Your task to perform on an android device: What's on my calendar tomorrow? Image 0: 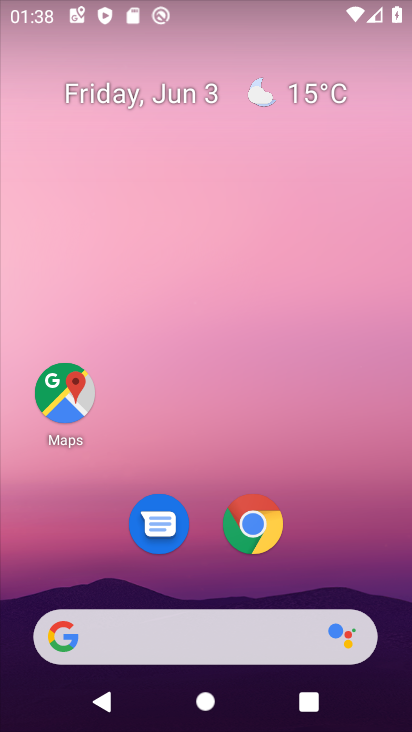
Step 0: drag from (189, 422) to (129, 1)
Your task to perform on an android device: What's on my calendar tomorrow? Image 1: 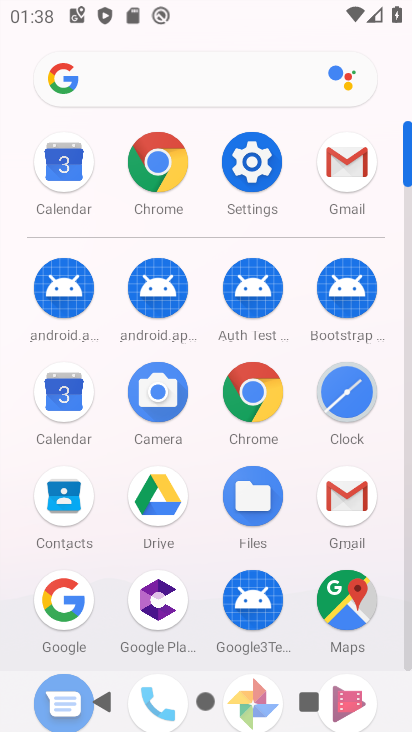
Step 1: click (58, 154)
Your task to perform on an android device: What's on my calendar tomorrow? Image 2: 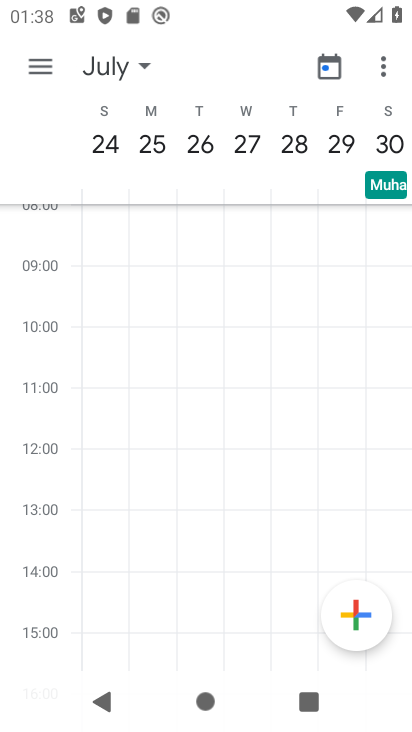
Step 2: click (42, 66)
Your task to perform on an android device: What's on my calendar tomorrow? Image 3: 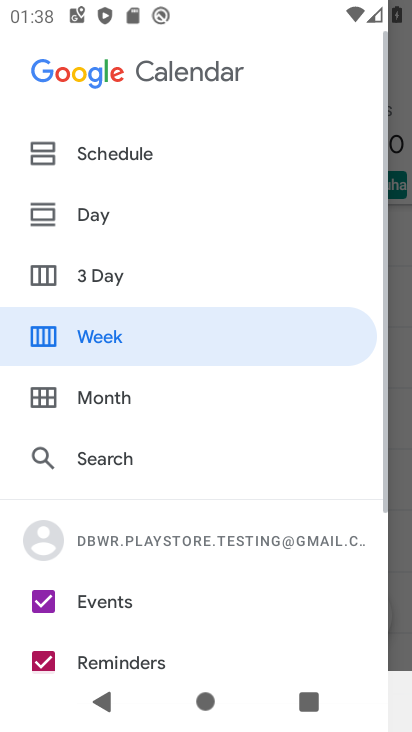
Step 3: click (54, 392)
Your task to perform on an android device: What's on my calendar tomorrow? Image 4: 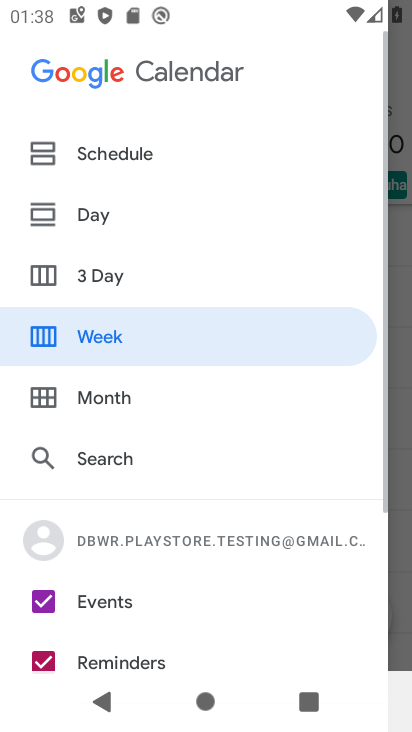
Step 4: click (52, 392)
Your task to perform on an android device: What's on my calendar tomorrow? Image 5: 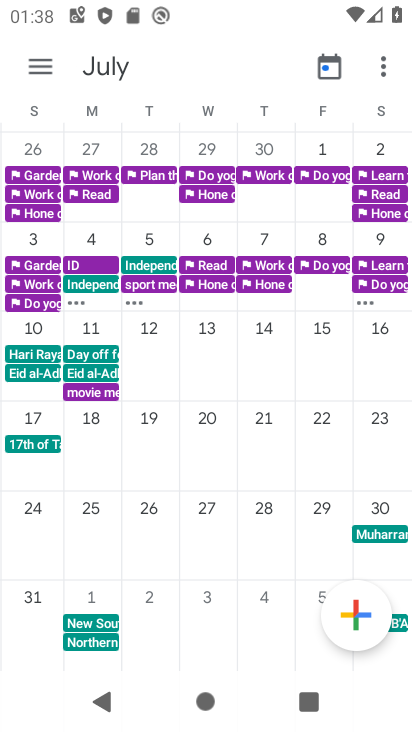
Step 5: drag from (23, 472) to (8, 395)
Your task to perform on an android device: What's on my calendar tomorrow? Image 6: 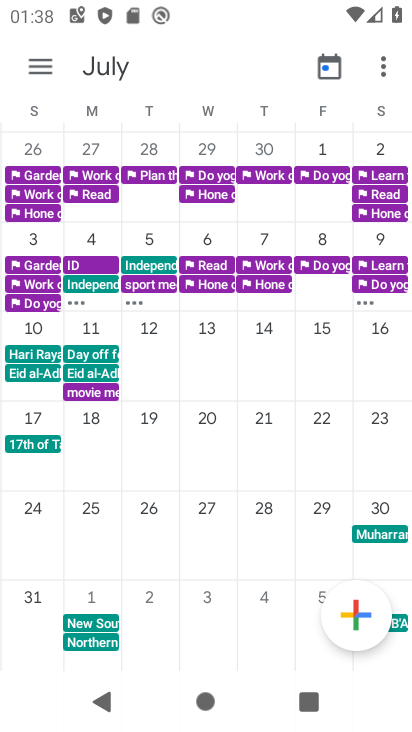
Step 6: drag from (99, 448) to (399, 510)
Your task to perform on an android device: What's on my calendar tomorrow? Image 7: 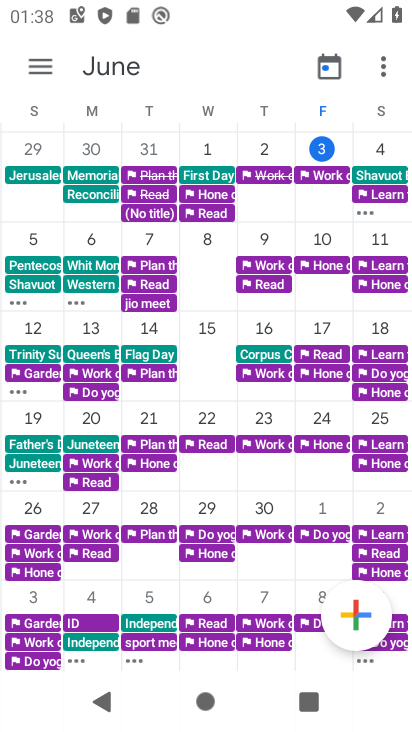
Step 7: click (324, 149)
Your task to perform on an android device: What's on my calendar tomorrow? Image 8: 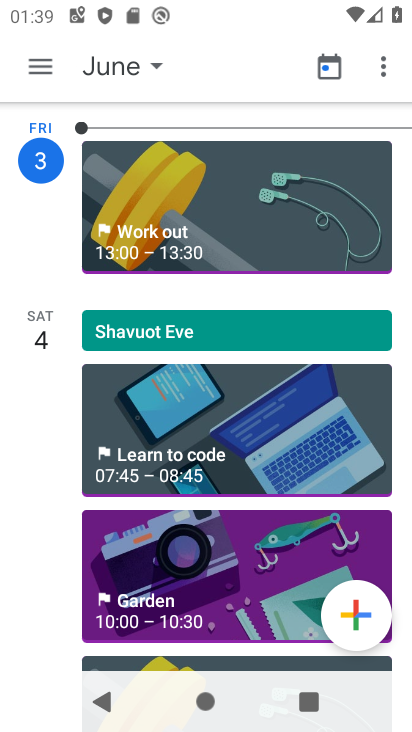
Step 8: task complete